Your task to perform on an android device: allow notifications from all sites in the chrome app Image 0: 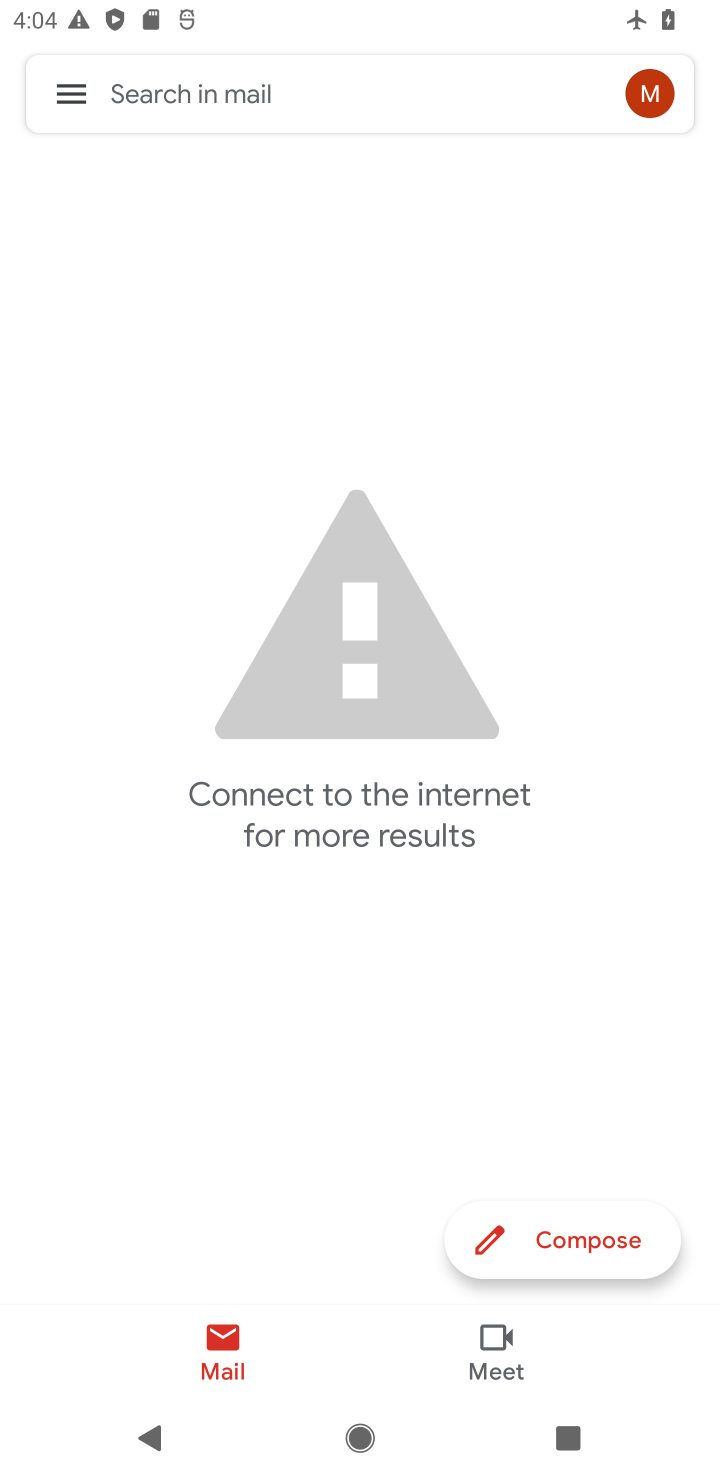
Step 0: press back button
Your task to perform on an android device: allow notifications from all sites in the chrome app Image 1: 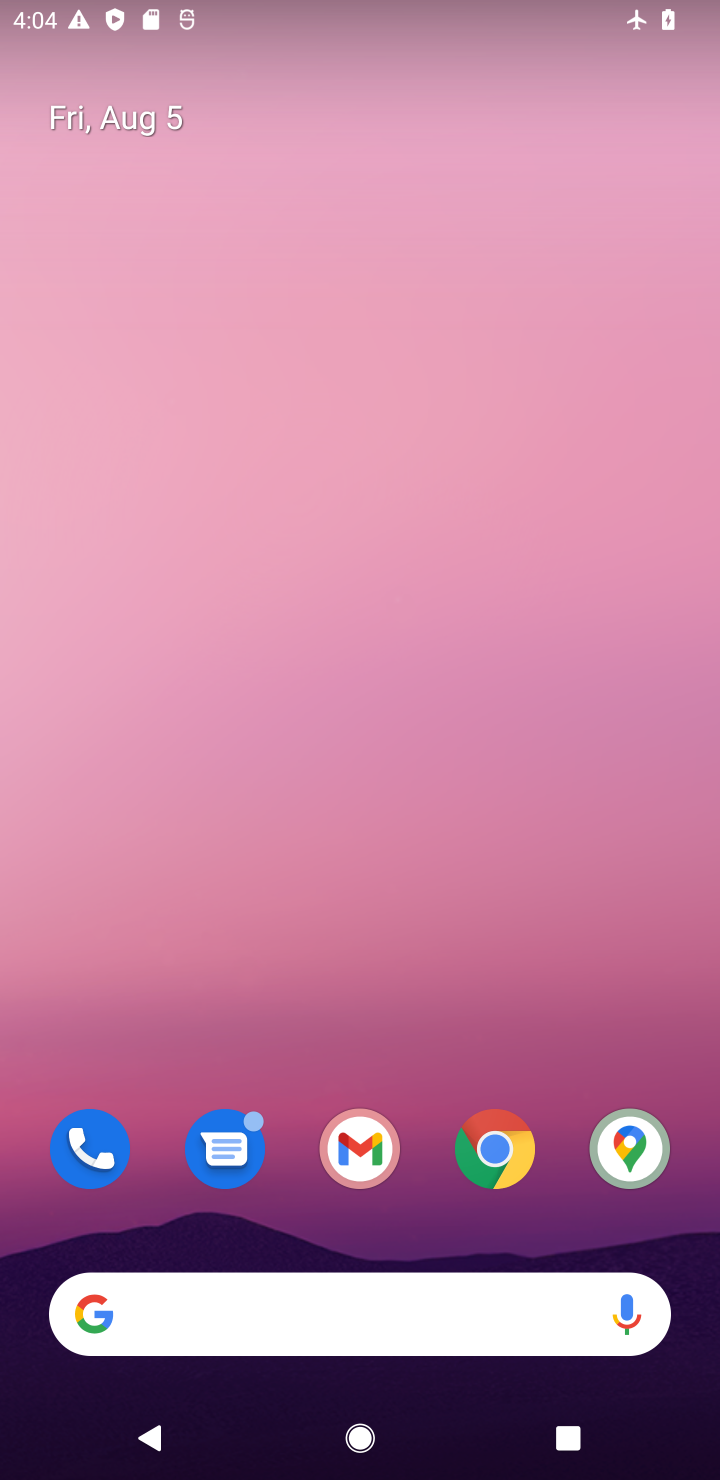
Step 1: click (454, 1157)
Your task to perform on an android device: allow notifications from all sites in the chrome app Image 2: 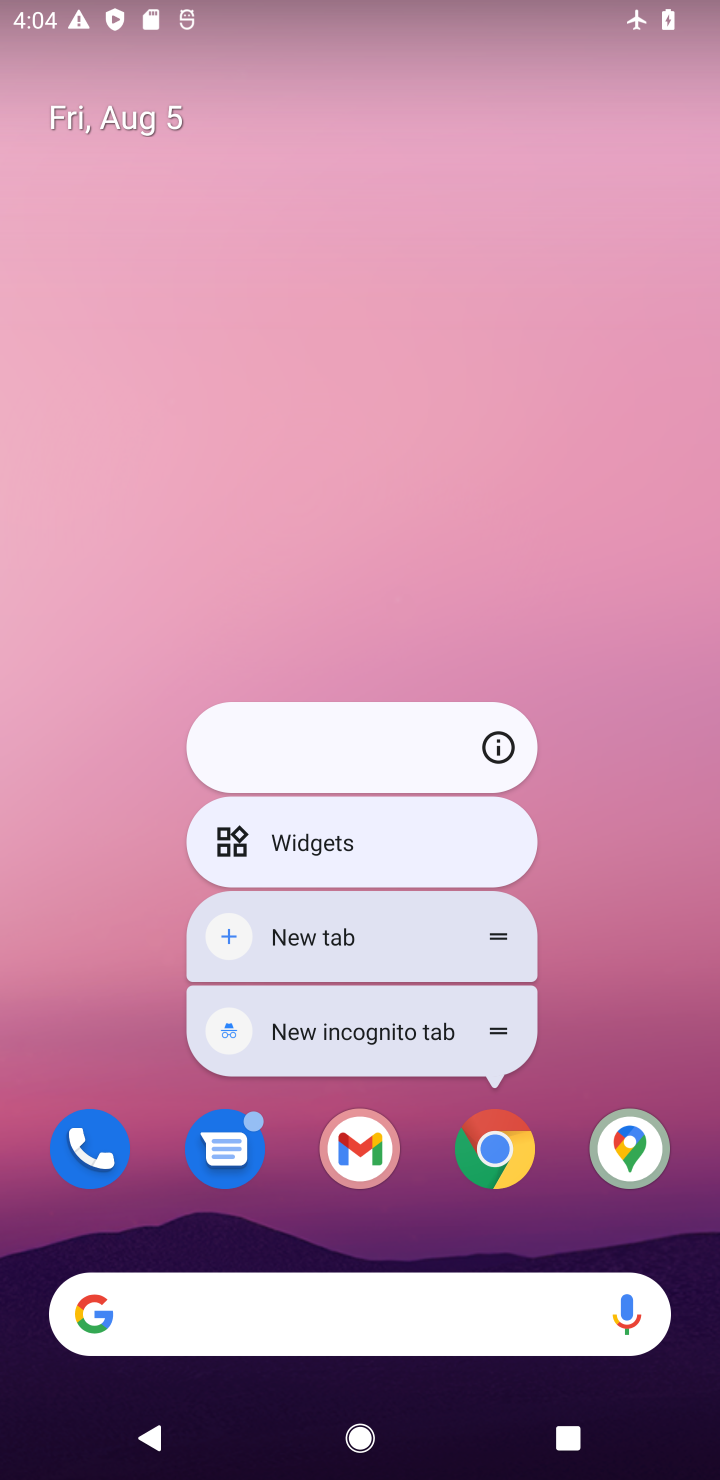
Step 2: click (474, 1131)
Your task to perform on an android device: allow notifications from all sites in the chrome app Image 3: 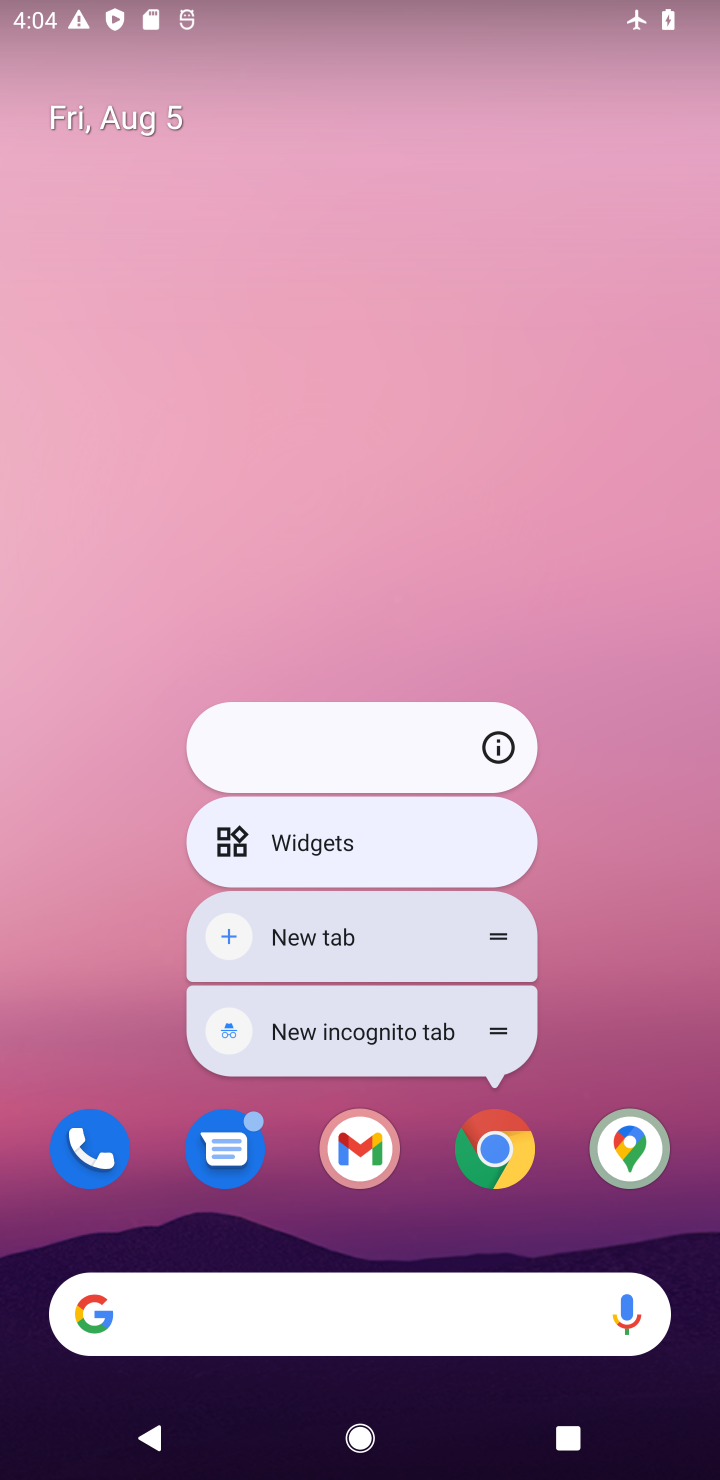
Step 3: click (498, 1169)
Your task to perform on an android device: allow notifications from all sites in the chrome app Image 4: 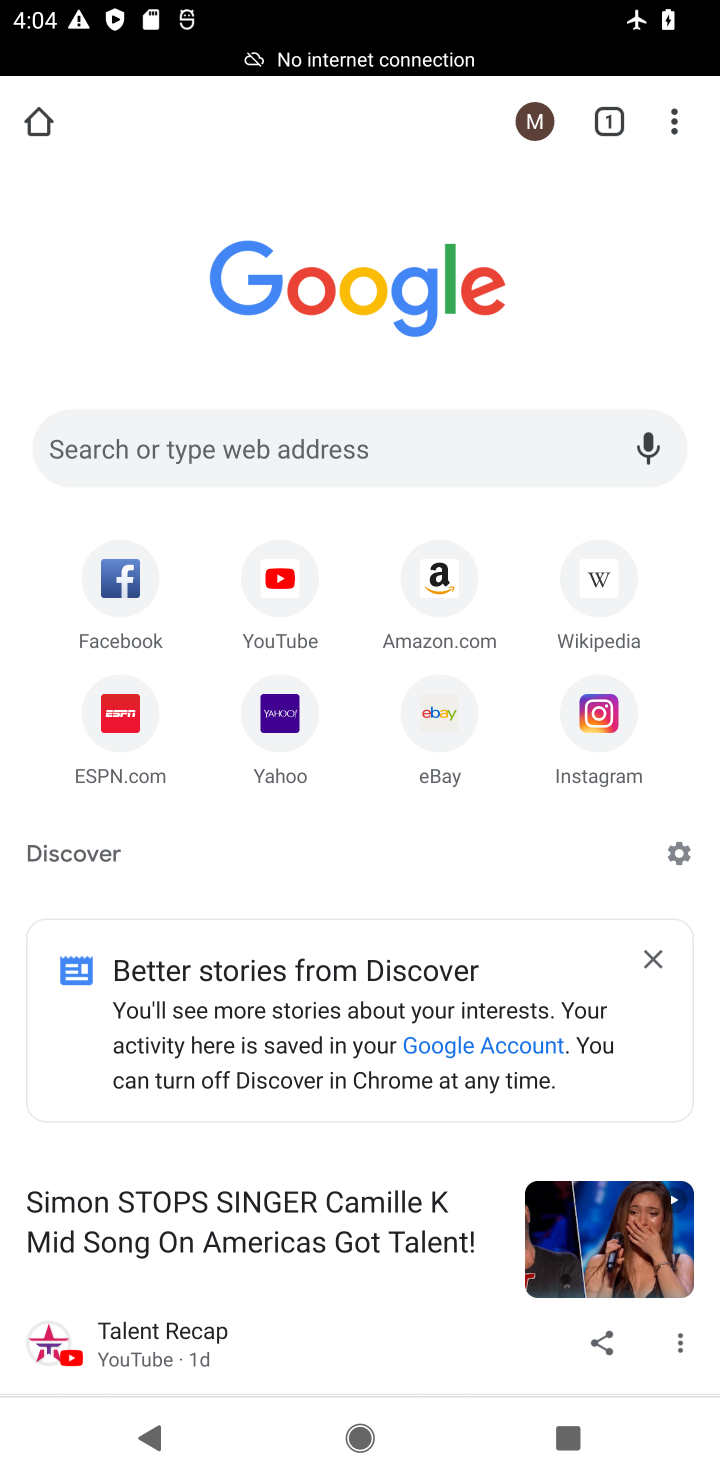
Step 4: drag from (669, 134) to (405, 905)
Your task to perform on an android device: allow notifications from all sites in the chrome app Image 5: 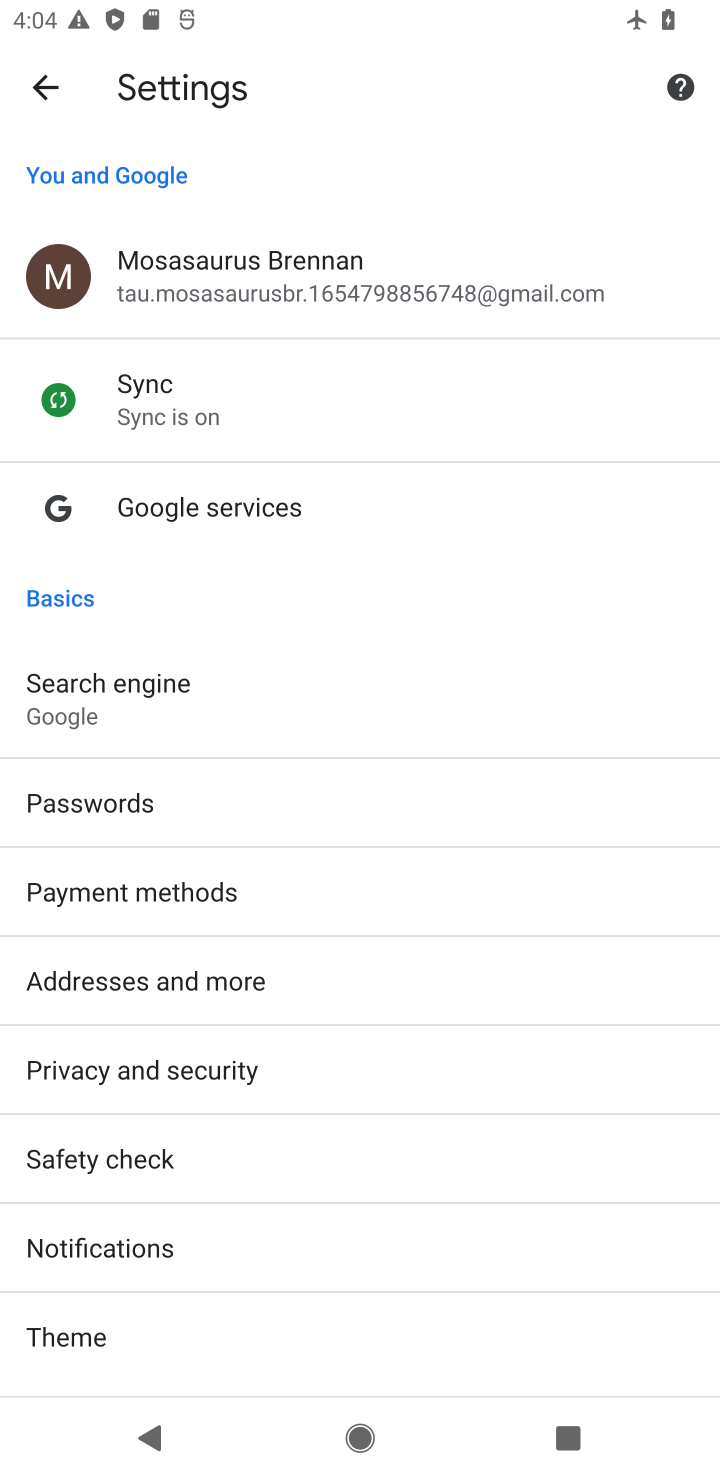
Step 5: click (172, 1246)
Your task to perform on an android device: allow notifications from all sites in the chrome app Image 6: 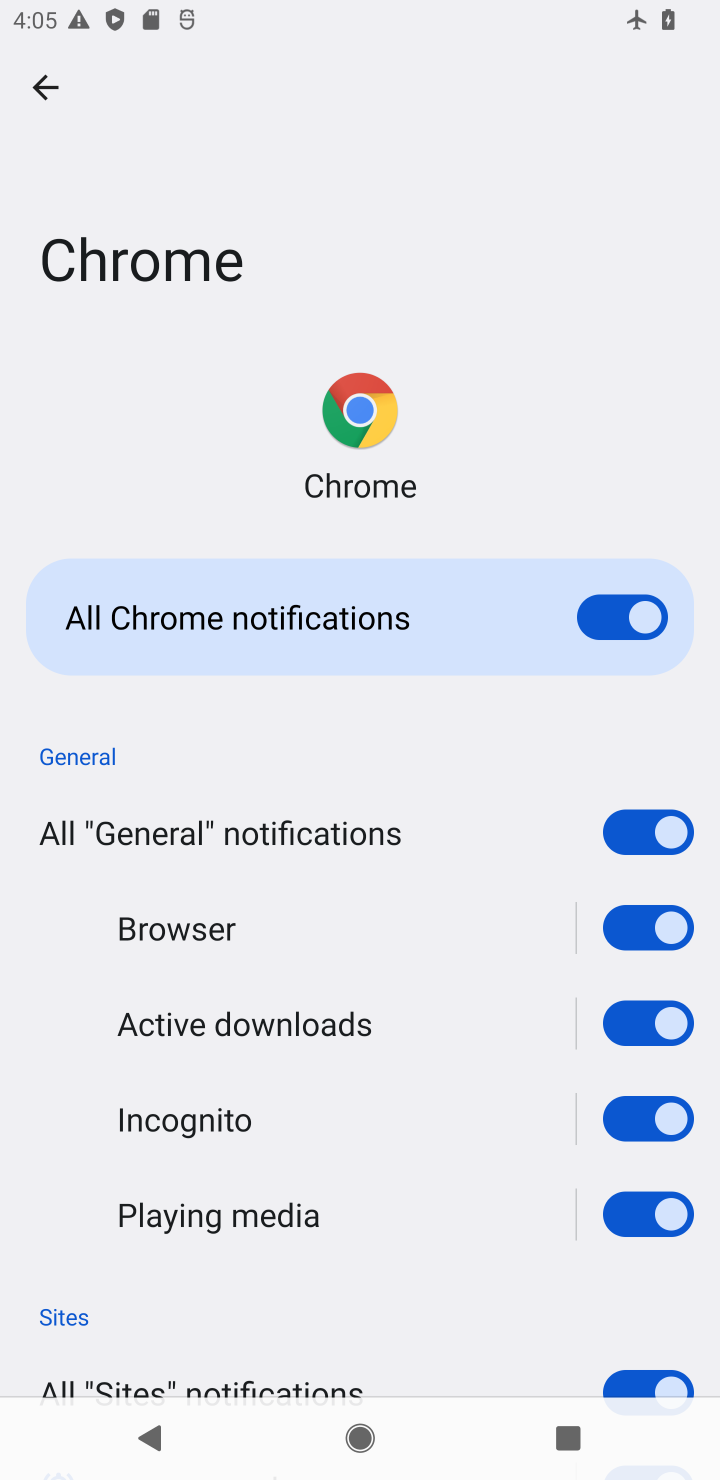
Step 6: task complete